Your task to perform on an android device: turn pop-ups off in chrome Image 0: 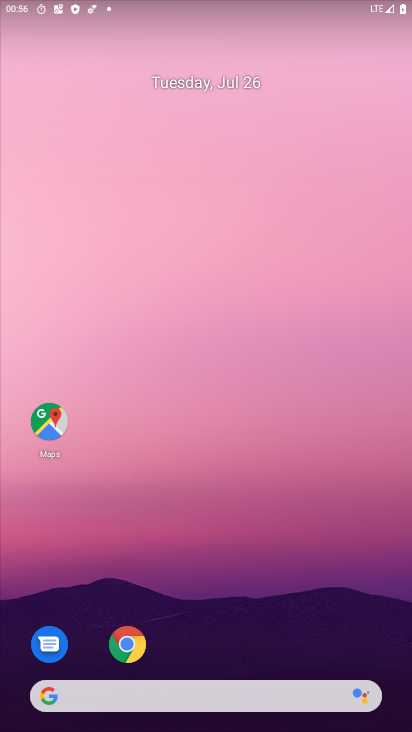
Step 0: click (130, 645)
Your task to perform on an android device: turn pop-ups off in chrome Image 1: 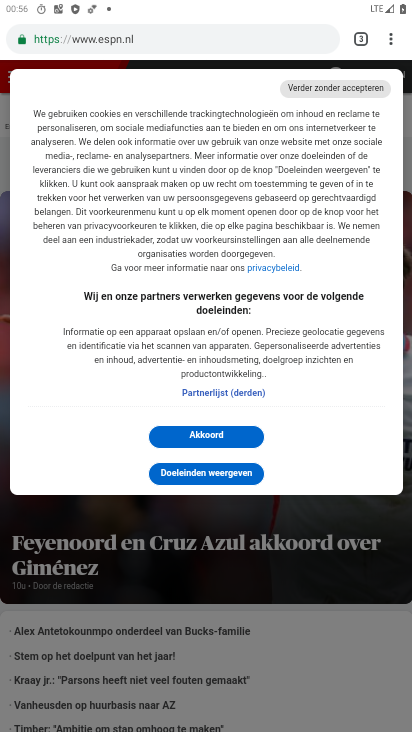
Step 1: drag from (393, 37) to (255, 474)
Your task to perform on an android device: turn pop-ups off in chrome Image 2: 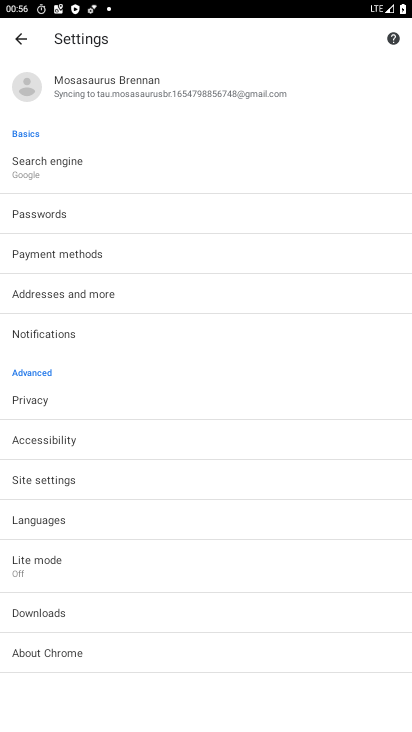
Step 2: click (71, 481)
Your task to perform on an android device: turn pop-ups off in chrome Image 3: 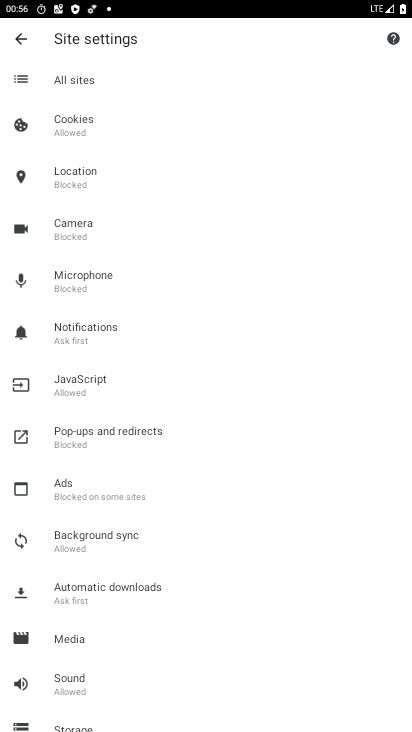
Step 3: click (90, 436)
Your task to perform on an android device: turn pop-ups off in chrome Image 4: 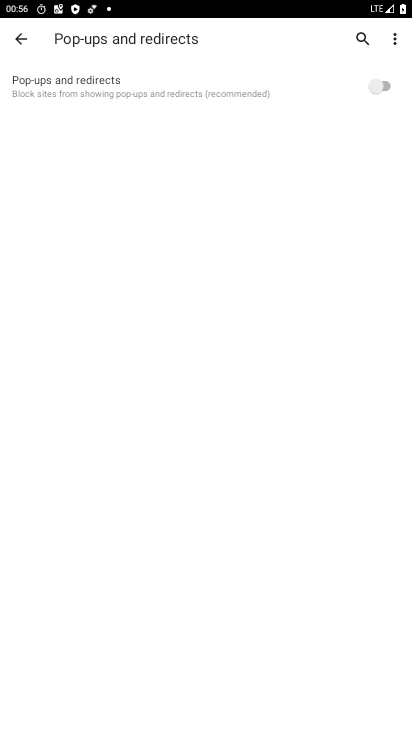
Step 4: task complete